Your task to perform on an android device: Open accessibility settings Image 0: 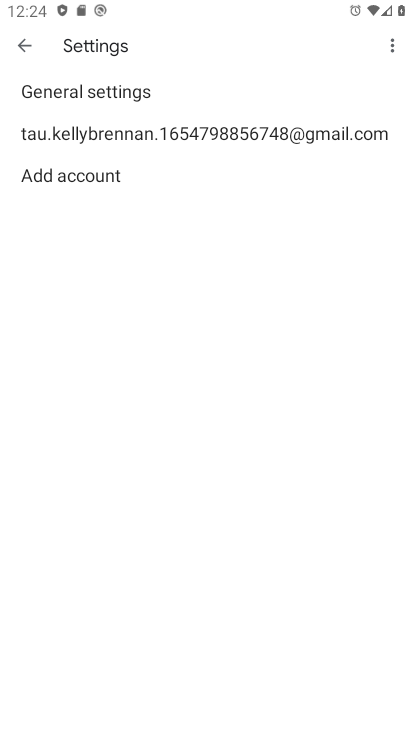
Step 0: press home button
Your task to perform on an android device: Open accessibility settings Image 1: 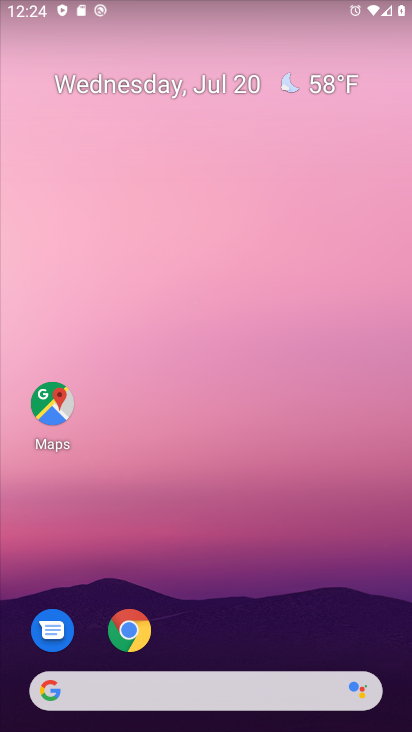
Step 1: drag from (204, 642) to (254, 76)
Your task to perform on an android device: Open accessibility settings Image 2: 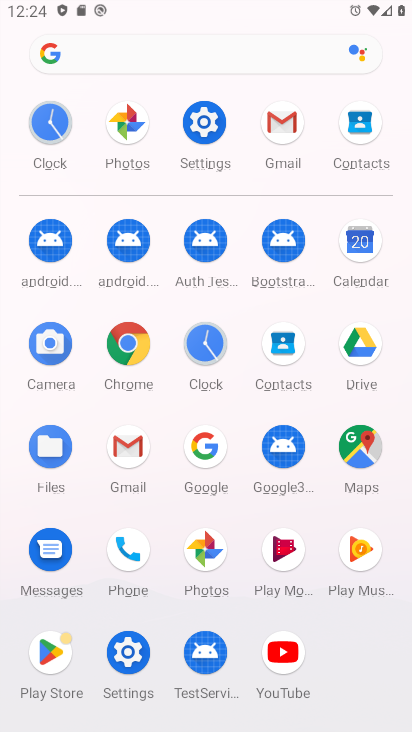
Step 2: click (202, 115)
Your task to perform on an android device: Open accessibility settings Image 3: 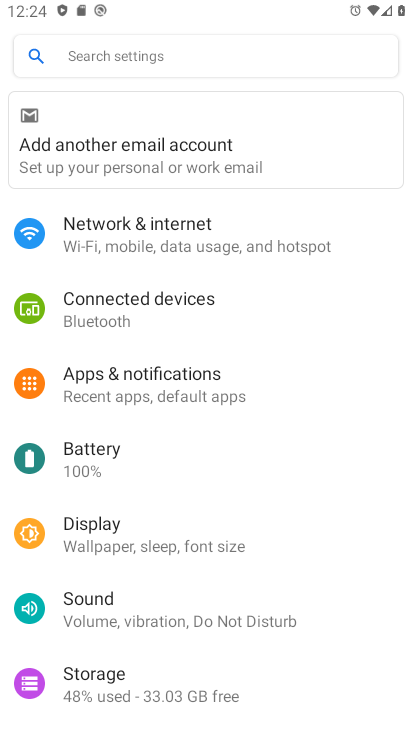
Step 3: drag from (271, 665) to (371, 100)
Your task to perform on an android device: Open accessibility settings Image 4: 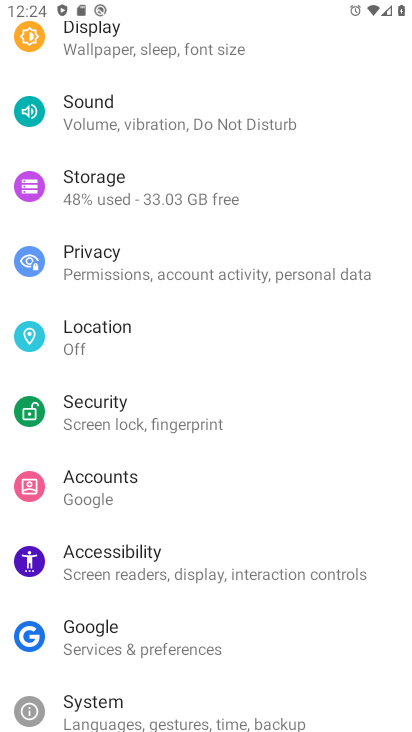
Step 4: click (146, 571)
Your task to perform on an android device: Open accessibility settings Image 5: 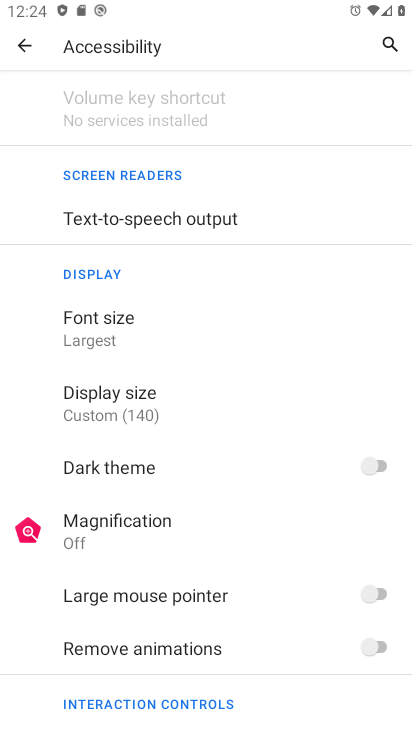
Step 5: task complete